Your task to perform on an android device: toggle location history Image 0: 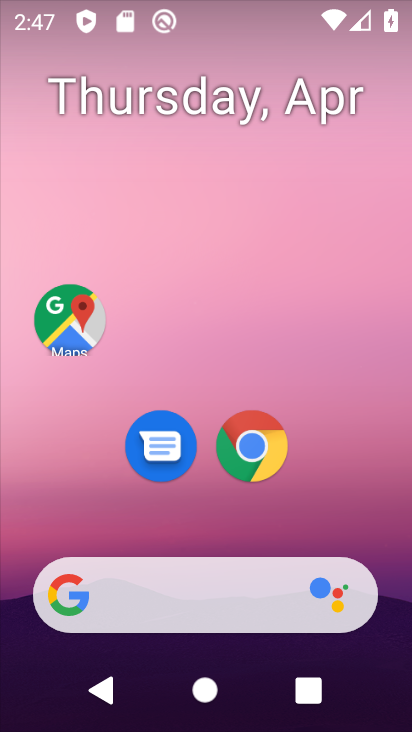
Step 0: drag from (223, 640) to (336, 105)
Your task to perform on an android device: toggle location history Image 1: 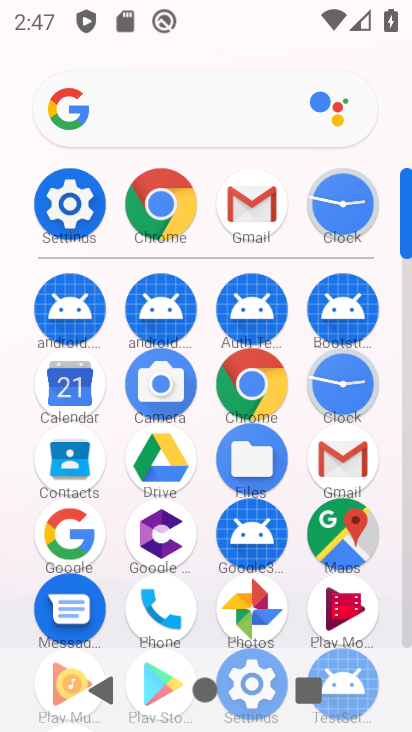
Step 1: click (62, 207)
Your task to perform on an android device: toggle location history Image 2: 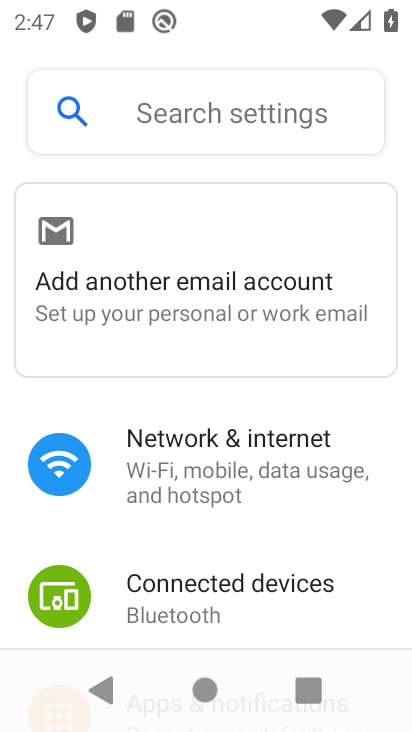
Step 2: click (152, 114)
Your task to perform on an android device: toggle location history Image 3: 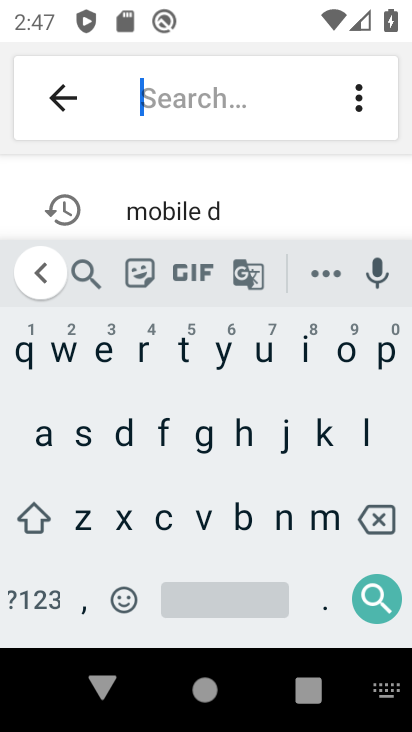
Step 3: click (359, 428)
Your task to perform on an android device: toggle location history Image 4: 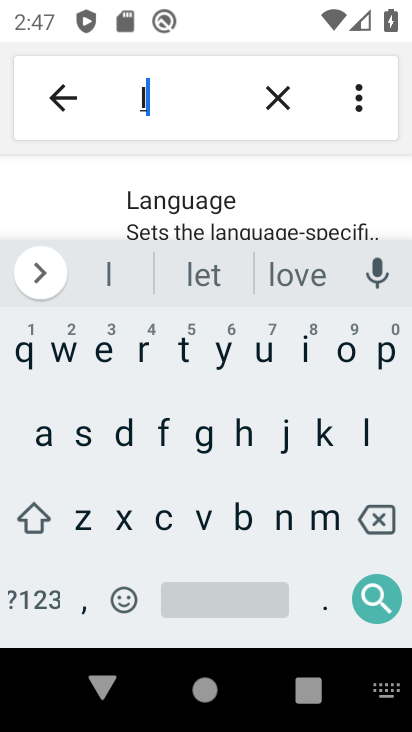
Step 4: click (348, 355)
Your task to perform on an android device: toggle location history Image 5: 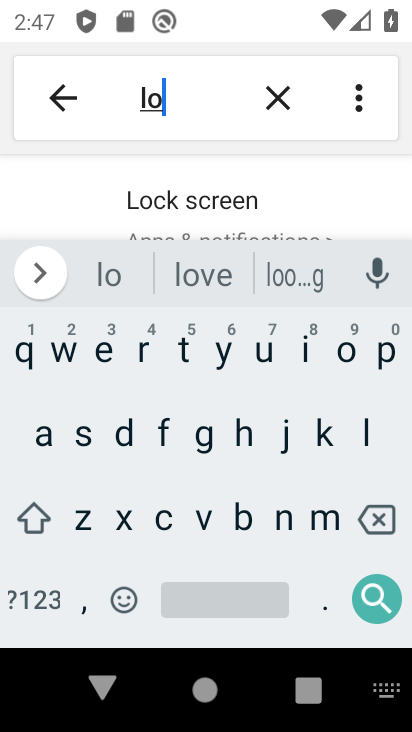
Step 5: click (163, 518)
Your task to perform on an android device: toggle location history Image 6: 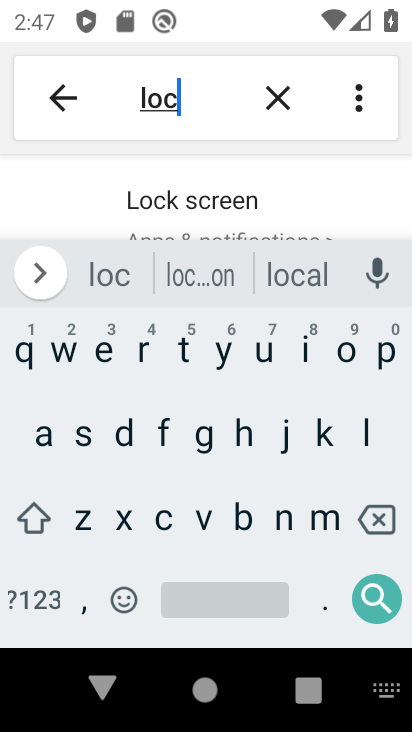
Step 6: click (44, 439)
Your task to perform on an android device: toggle location history Image 7: 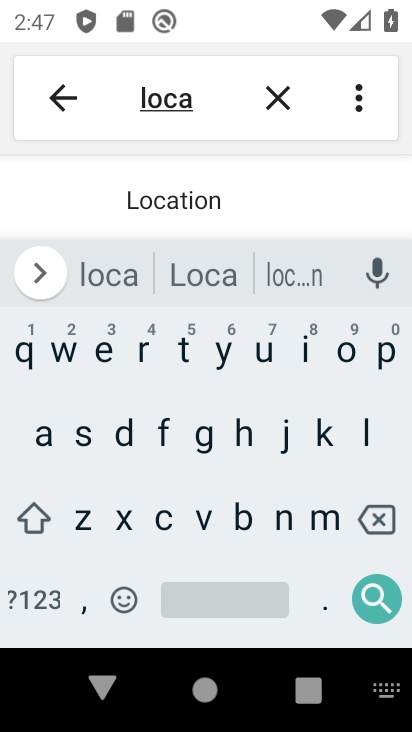
Step 7: drag from (196, 212) to (193, 138)
Your task to perform on an android device: toggle location history Image 8: 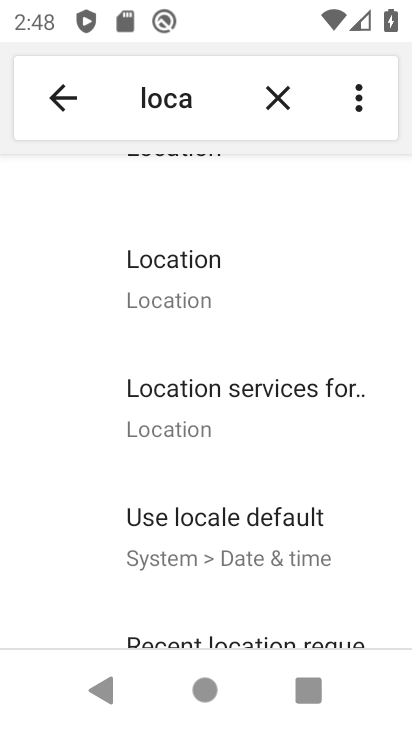
Step 8: click (125, 259)
Your task to perform on an android device: toggle location history Image 9: 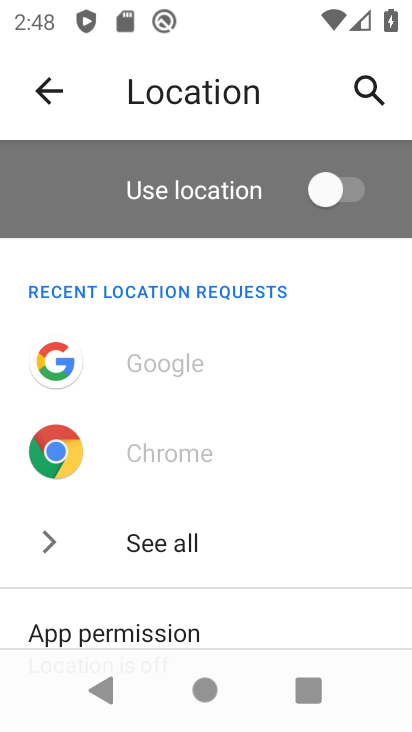
Step 9: drag from (230, 532) to (296, 264)
Your task to perform on an android device: toggle location history Image 10: 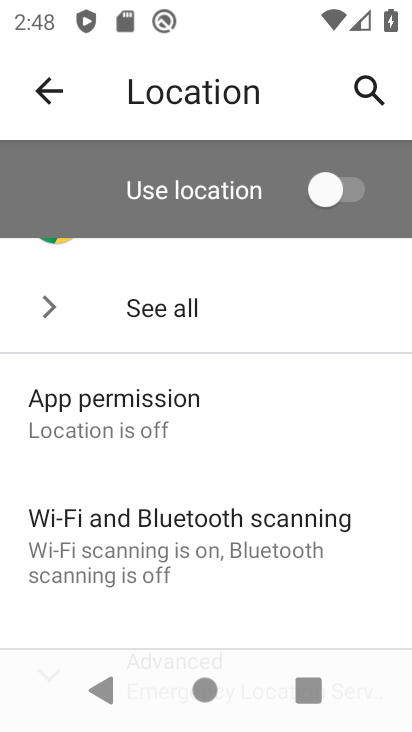
Step 10: drag from (169, 608) to (231, 373)
Your task to perform on an android device: toggle location history Image 11: 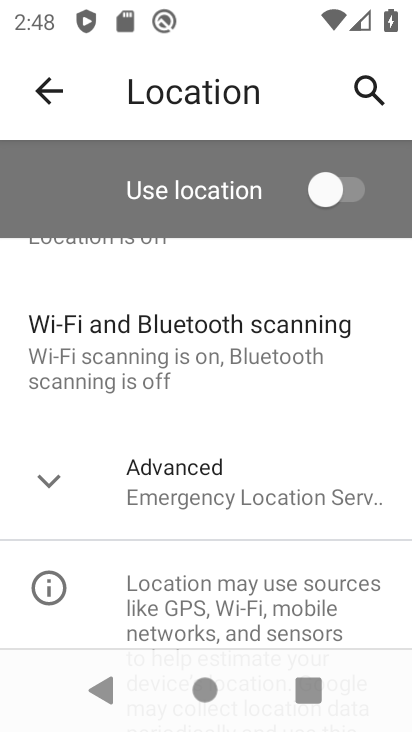
Step 11: click (97, 494)
Your task to perform on an android device: toggle location history Image 12: 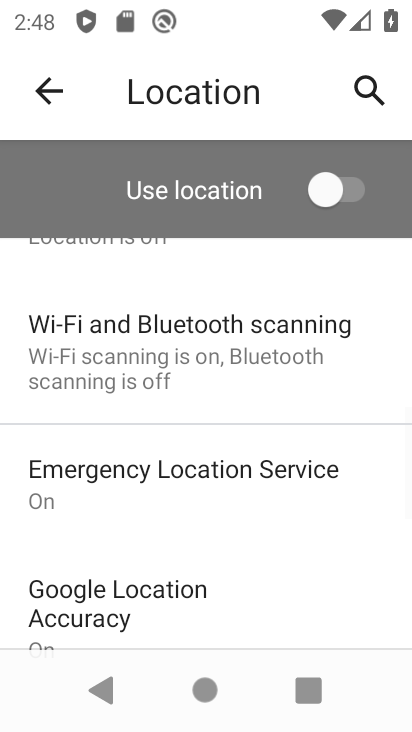
Step 12: drag from (159, 588) to (213, 332)
Your task to perform on an android device: toggle location history Image 13: 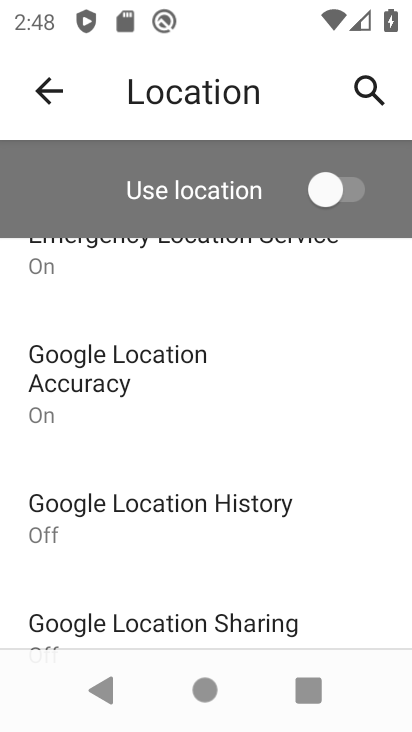
Step 13: click (144, 498)
Your task to perform on an android device: toggle location history Image 14: 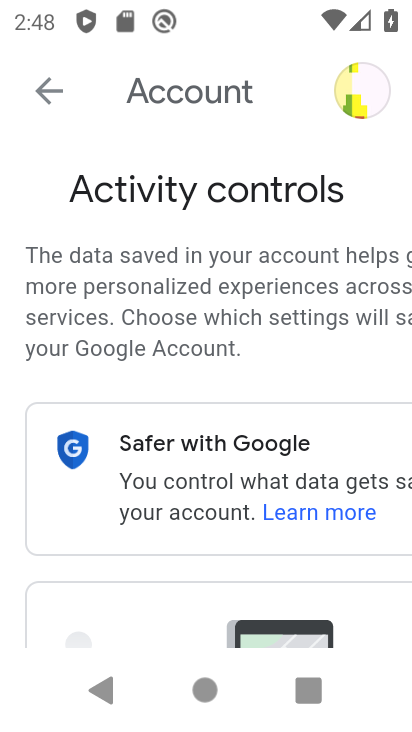
Step 14: task complete